Your task to perform on an android device: Go to sound settings Image 0: 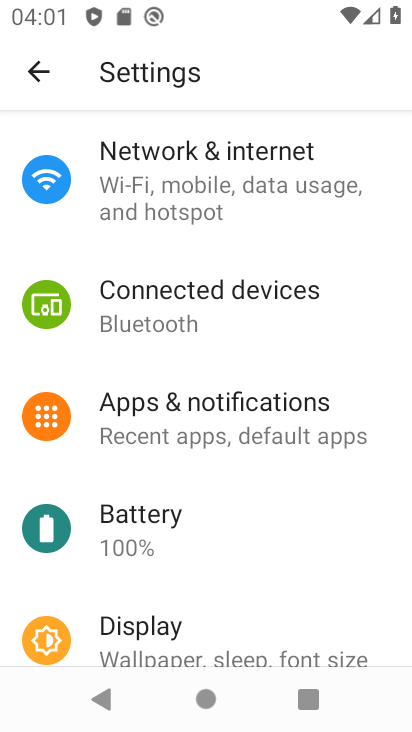
Step 0: drag from (181, 435) to (226, 229)
Your task to perform on an android device: Go to sound settings Image 1: 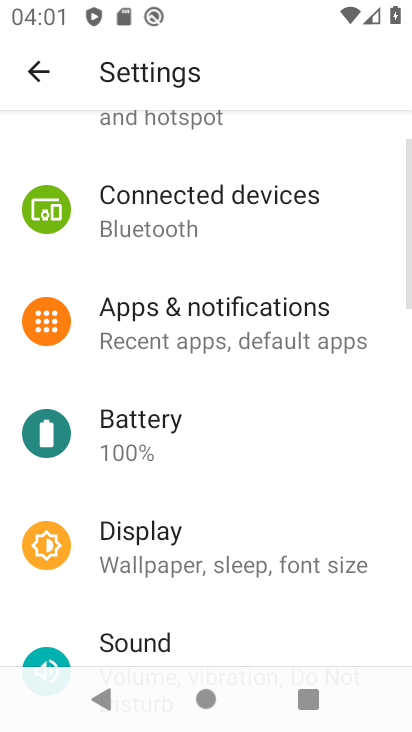
Step 1: drag from (164, 505) to (230, 259)
Your task to perform on an android device: Go to sound settings Image 2: 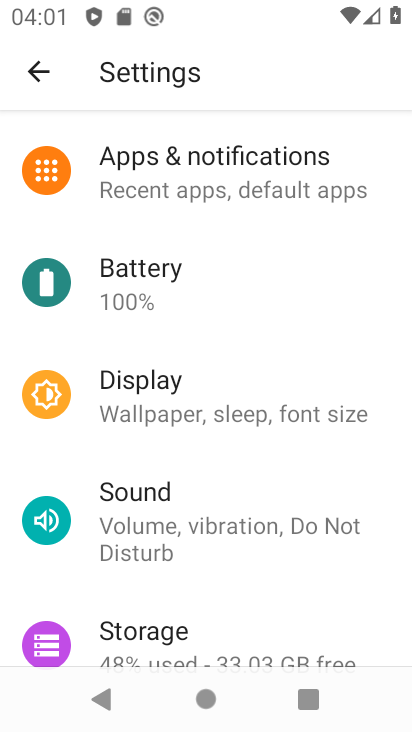
Step 2: click (135, 550)
Your task to perform on an android device: Go to sound settings Image 3: 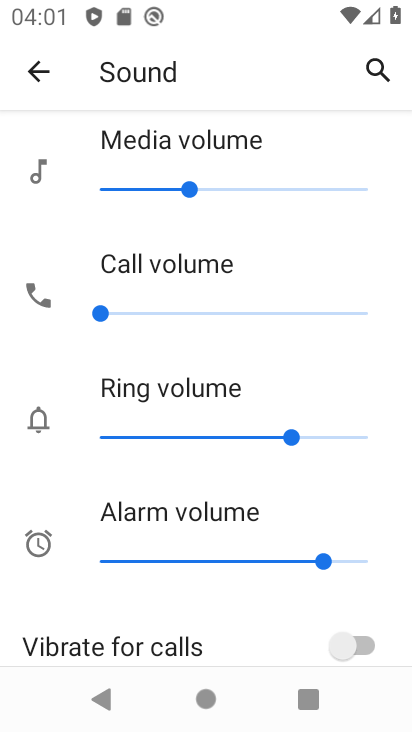
Step 3: task complete